Your task to perform on an android device: Turn off the flashlight Image 0: 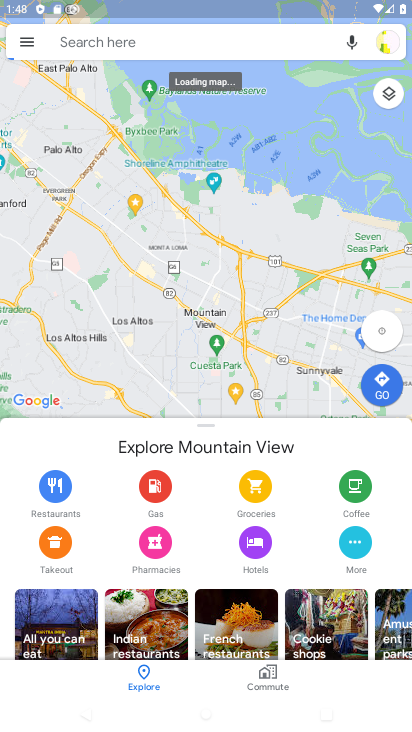
Step 0: press home button
Your task to perform on an android device: Turn off the flashlight Image 1: 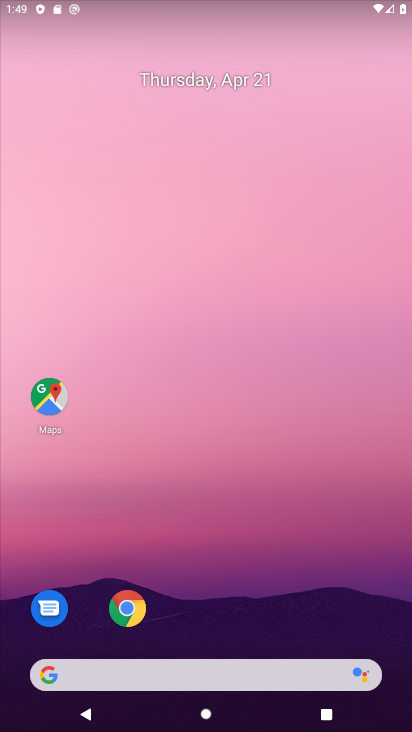
Step 1: drag from (315, 426) to (336, 75)
Your task to perform on an android device: Turn off the flashlight Image 2: 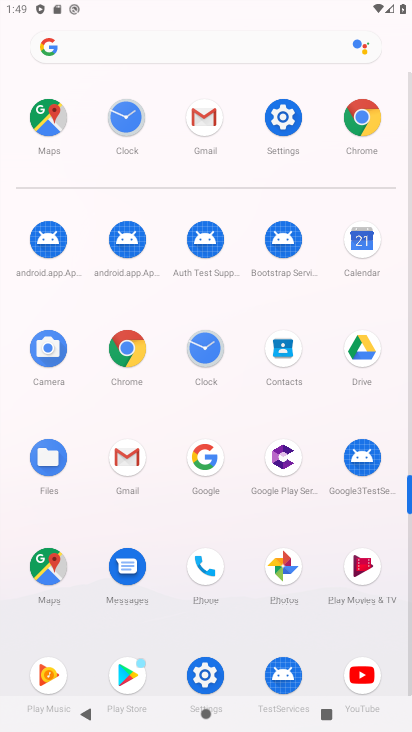
Step 2: click (287, 126)
Your task to perform on an android device: Turn off the flashlight Image 3: 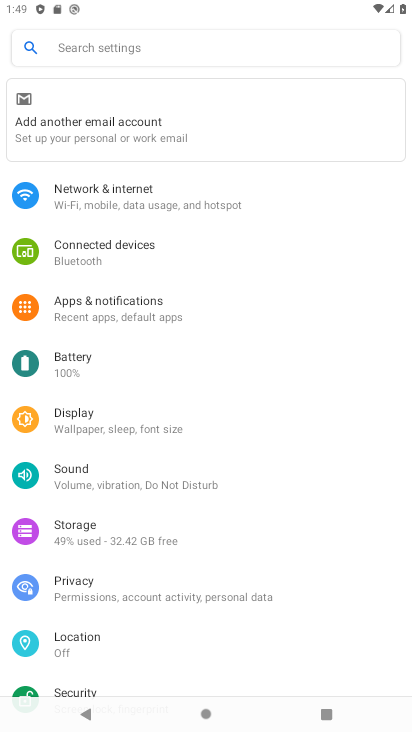
Step 3: task complete